Your task to perform on an android device: Open Chrome and go to settings Image 0: 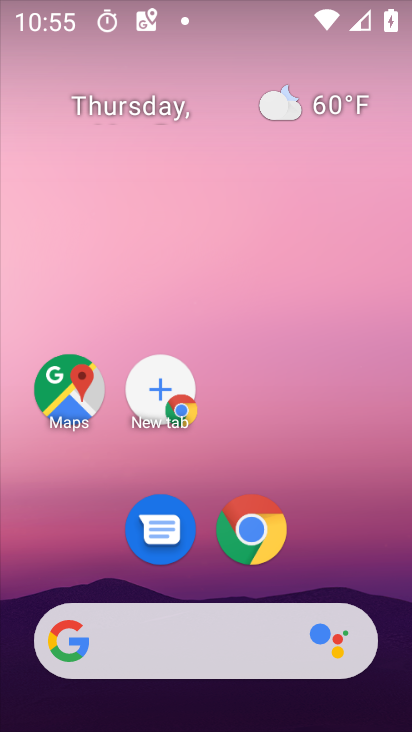
Step 0: drag from (362, 587) to (229, 128)
Your task to perform on an android device: Open Chrome and go to settings Image 1: 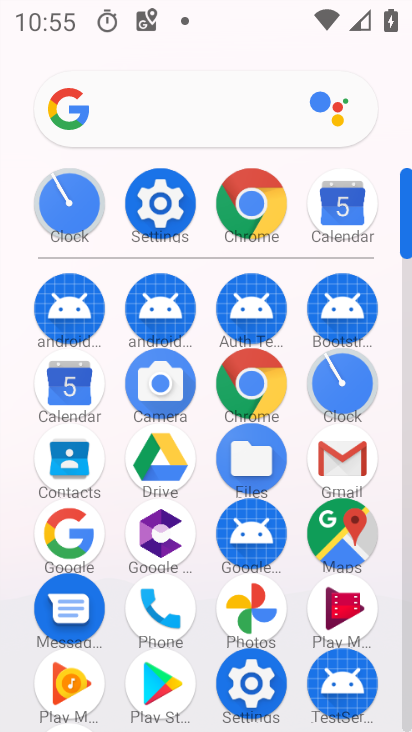
Step 1: click (240, 207)
Your task to perform on an android device: Open Chrome and go to settings Image 2: 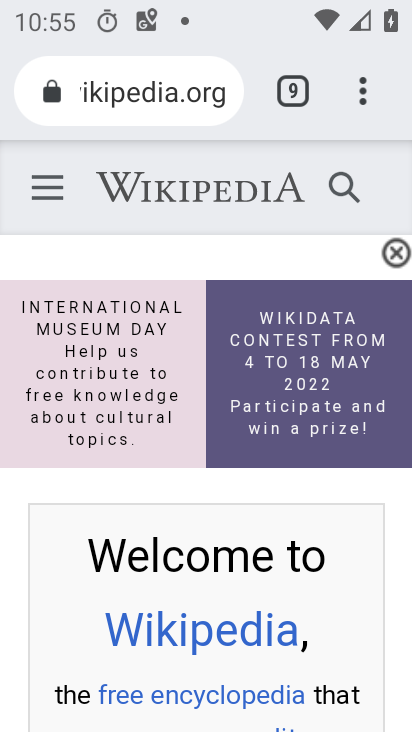
Step 2: drag from (357, 86) to (104, 542)
Your task to perform on an android device: Open Chrome and go to settings Image 3: 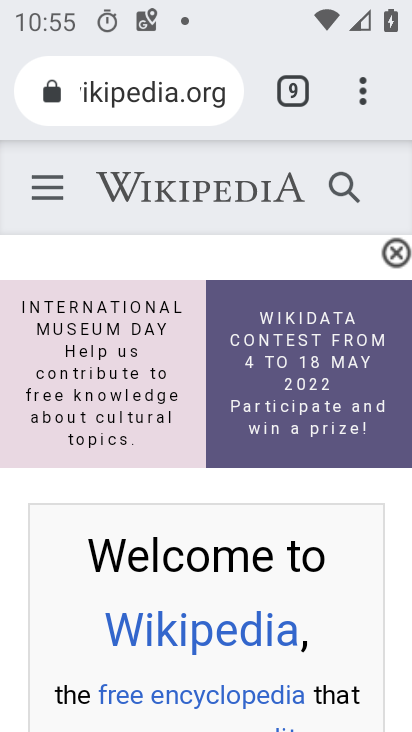
Step 3: click (102, 552)
Your task to perform on an android device: Open Chrome and go to settings Image 4: 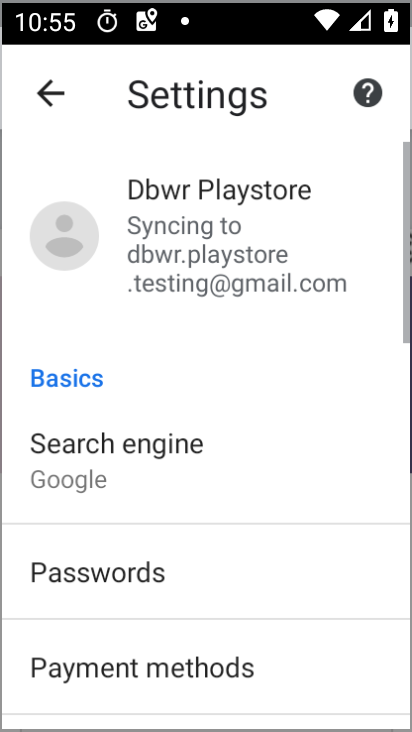
Step 4: click (101, 553)
Your task to perform on an android device: Open Chrome and go to settings Image 5: 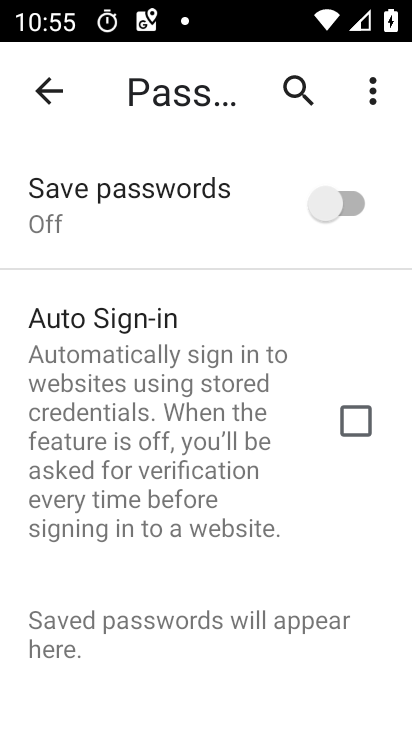
Step 5: click (47, 82)
Your task to perform on an android device: Open Chrome and go to settings Image 6: 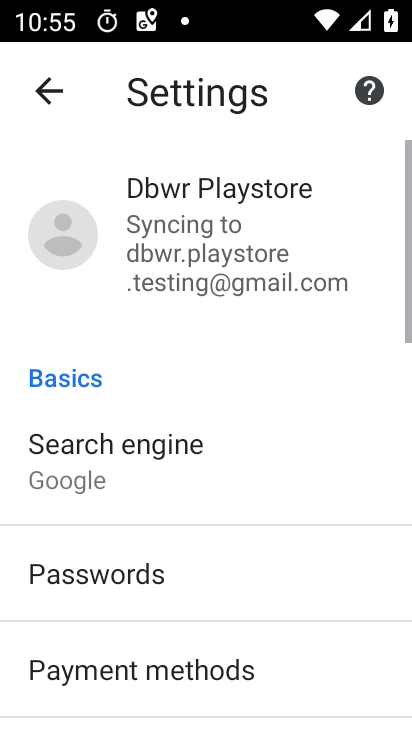
Step 6: task complete